Your task to perform on an android device: turn on javascript in the chrome app Image 0: 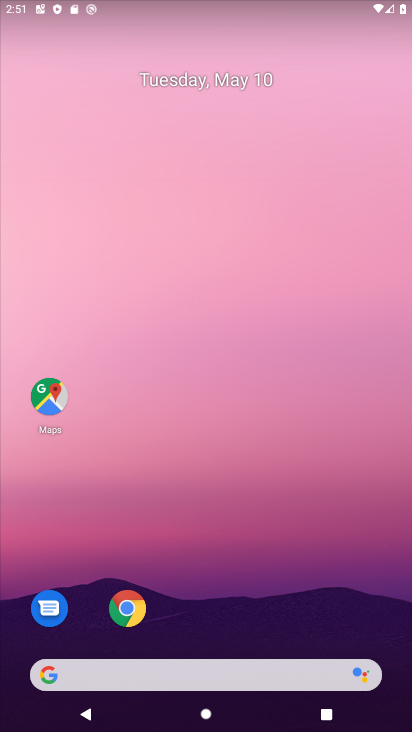
Step 0: click (140, 613)
Your task to perform on an android device: turn on javascript in the chrome app Image 1: 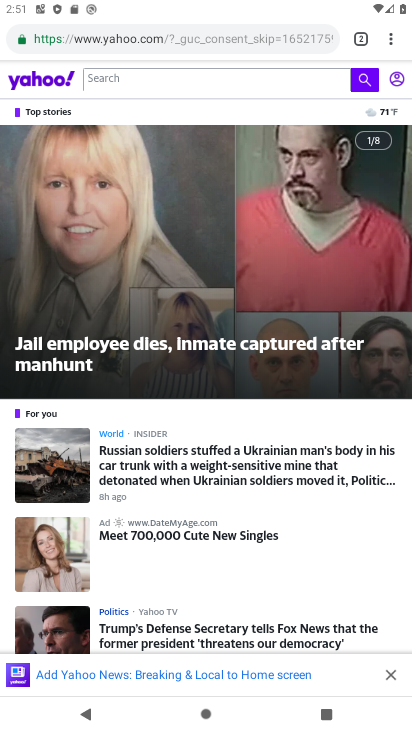
Step 1: click (396, 37)
Your task to perform on an android device: turn on javascript in the chrome app Image 2: 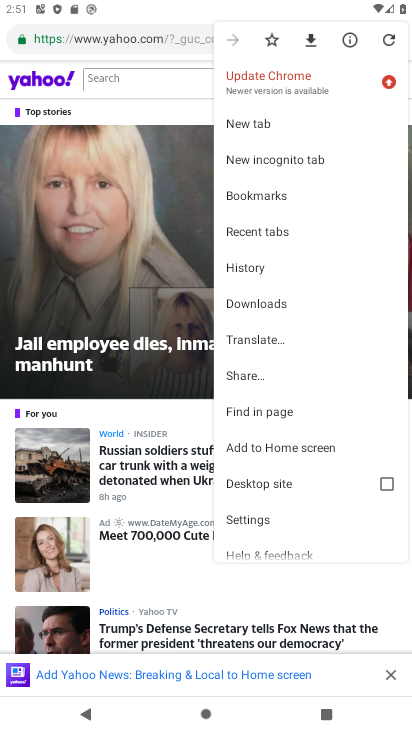
Step 2: click (250, 515)
Your task to perform on an android device: turn on javascript in the chrome app Image 3: 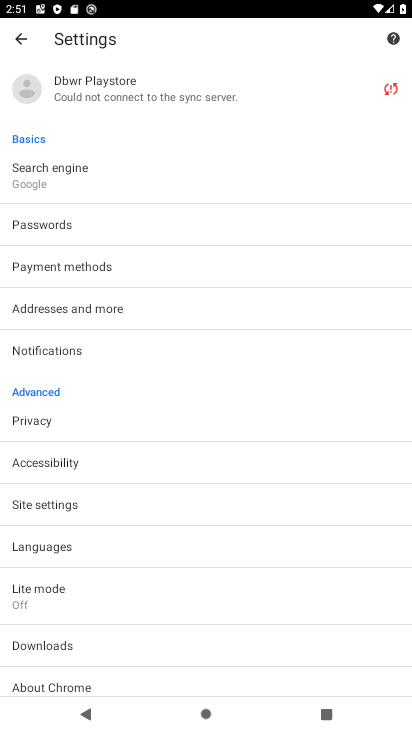
Step 3: click (92, 508)
Your task to perform on an android device: turn on javascript in the chrome app Image 4: 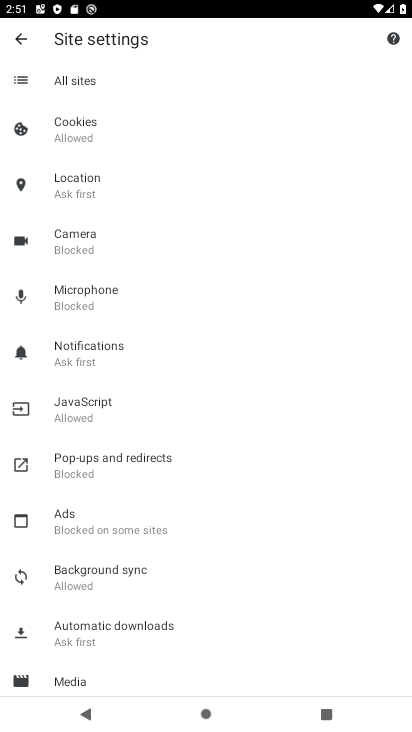
Step 4: click (79, 402)
Your task to perform on an android device: turn on javascript in the chrome app Image 5: 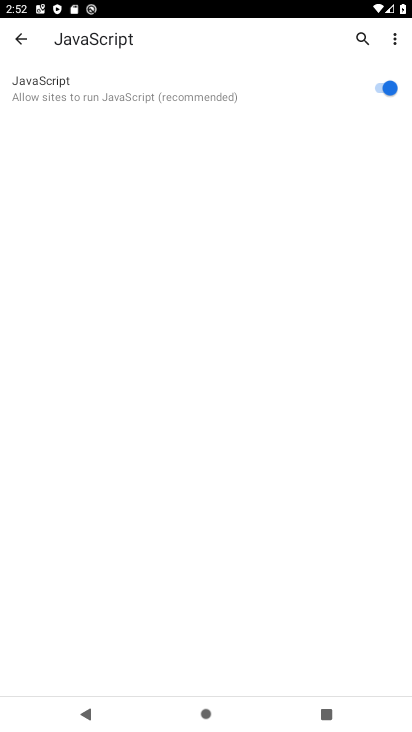
Step 5: task complete